Your task to perform on an android device: Open the stopwatch Image 0: 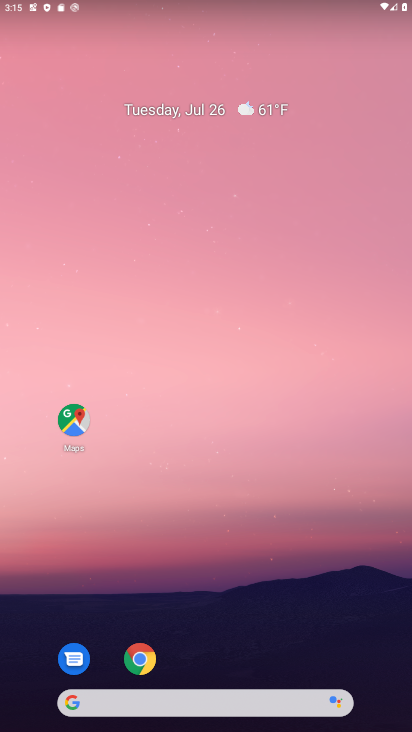
Step 0: drag from (222, 302) to (224, 232)
Your task to perform on an android device: Open the stopwatch Image 1: 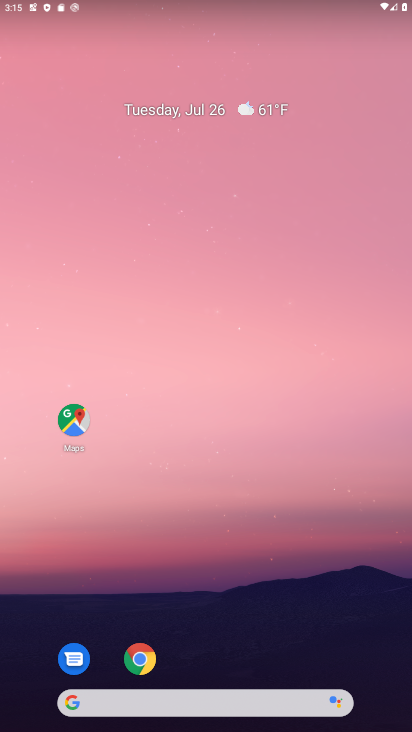
Step 1: drag from (171, 618) to (276, 139)
Your task to perform on an android device: Open the stopwatch Image 2: 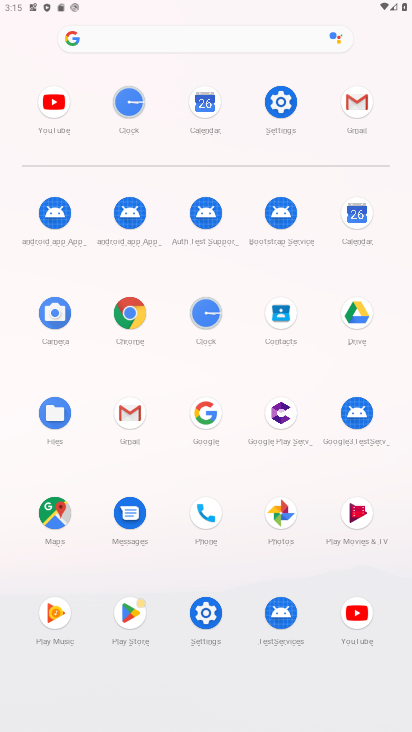
Step 2: click (122, 105)
Your task to perform on an android device: Open the stopwatch Image 3: 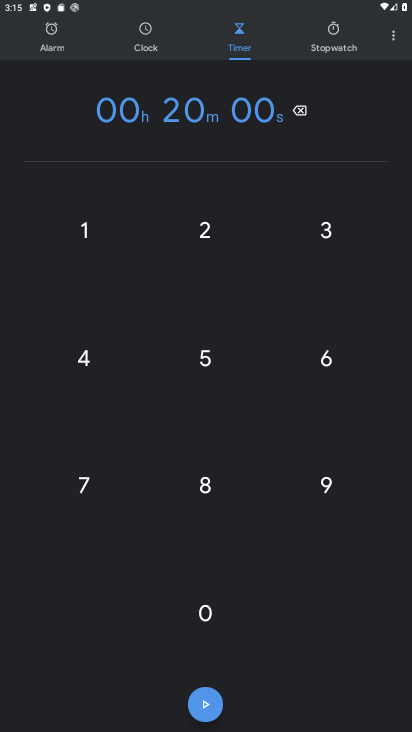
Step 3: click (333, 31)
Your task to perform on an android device: Open the stopwatch Image 4: 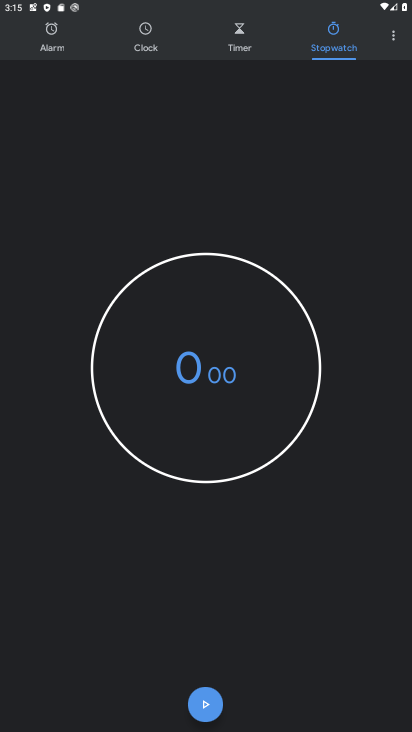
Step 4: task complete